Your task to perform on an android device: Go to Android settings Image 0: 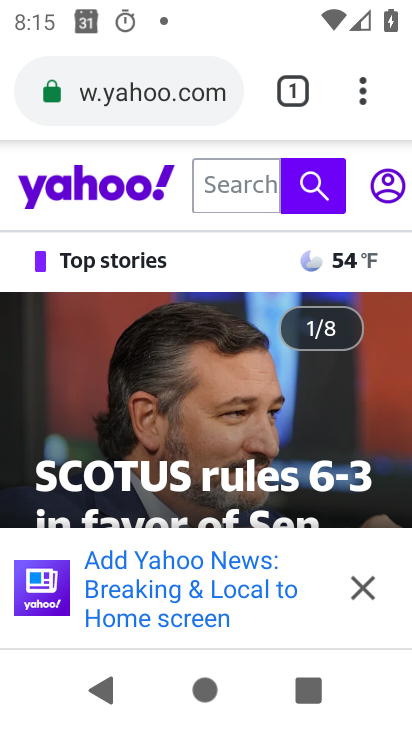
Step 0: press home button
Your task to perform on an android device: Go to Android settings Image 1: 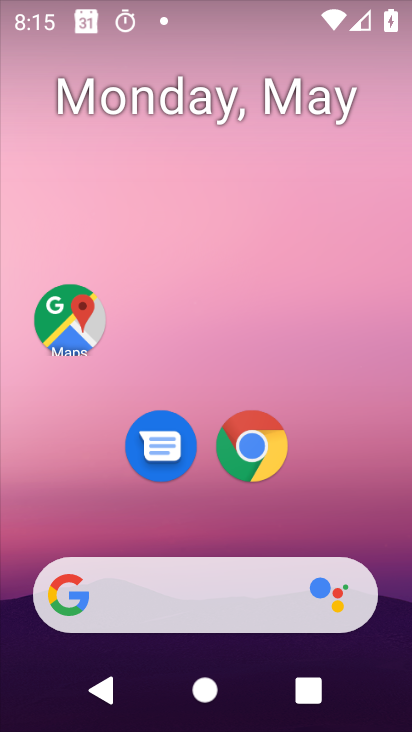
Step 1: drag from (336, 530) to (218, 8)
Your task to perform on an android device: Go to Android settings Image 2: 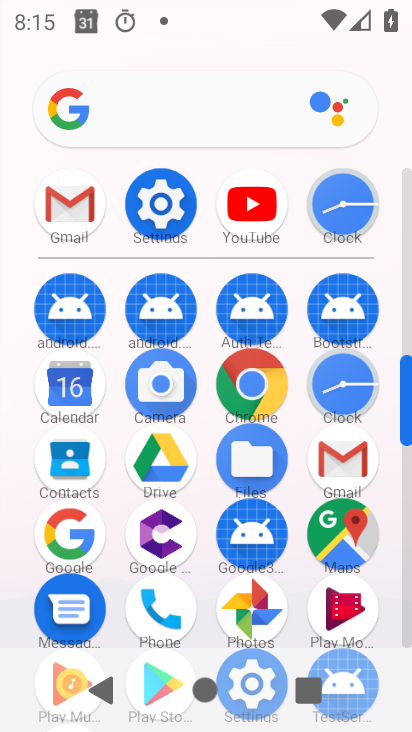
Step 2: click (166, 237)
Your task to perform on an android device: Go to Android settings Image 3: 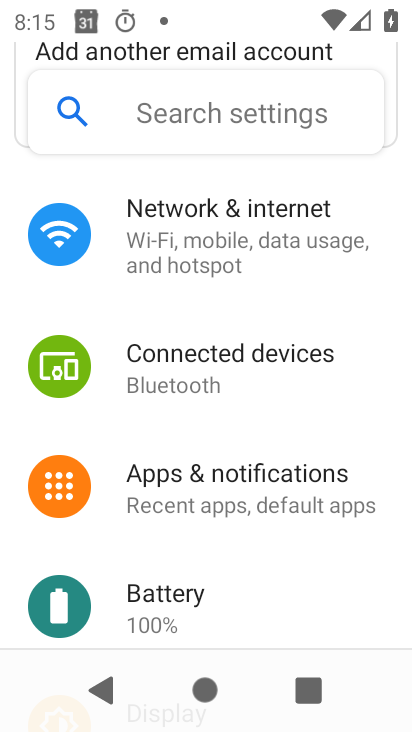
Step 3: task complete